Your task to perform on an android device: delete a single message in the gmail app Image 0: 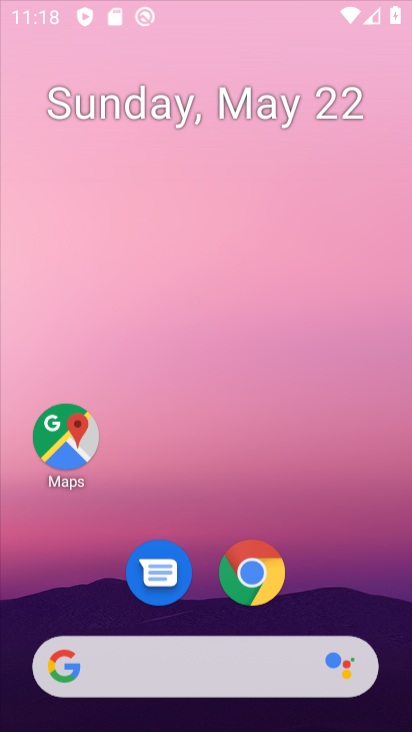
Step 0: click (192, 192)
Your task to perform on an android device: delete a single message in the gmail app Image 1: 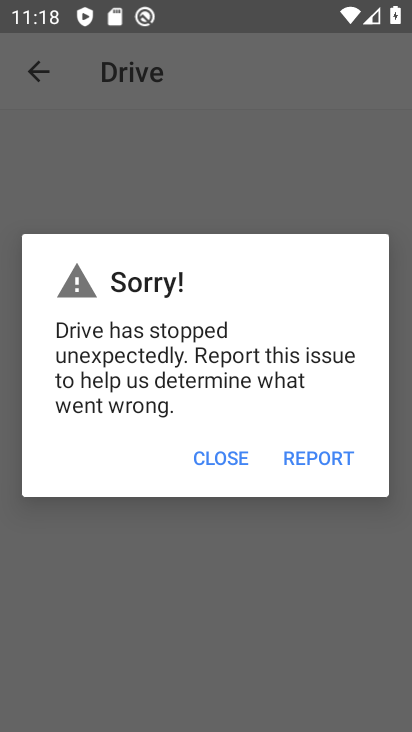
Step 1: press home button
Your task to perform on an android device: delete a single message in the gmail app Image 2: 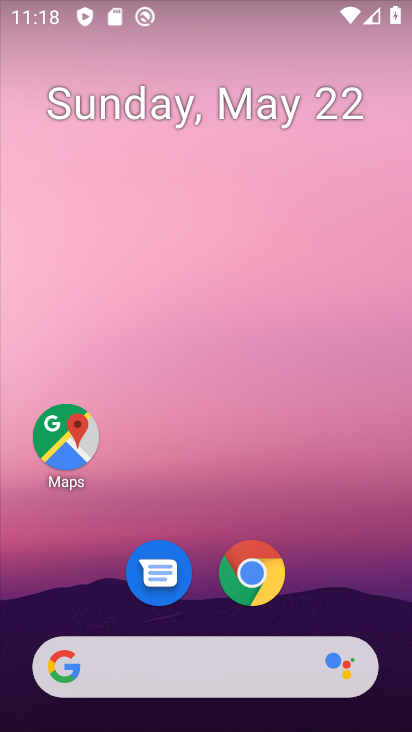
Step 2: drag from (198, 604) to (221, 5)
Your task to perform on an android device: delete a single message in the gmail app Image 3: 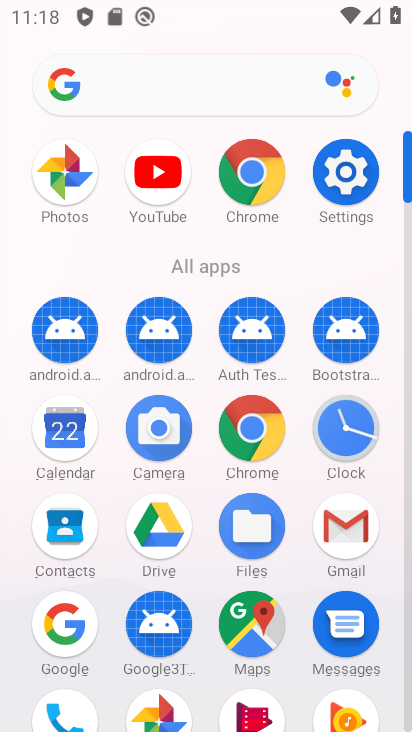
Step 3: click (349, 525)
Your task to perform on an android device: delete a single message in the gmail app Image 4: 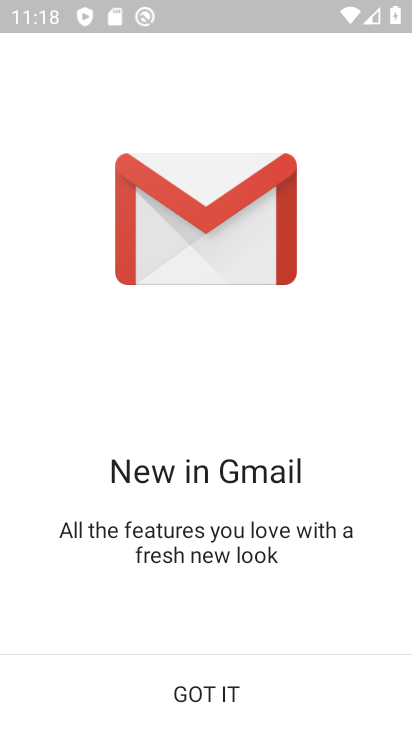
Step 4: click (209, 691)
Your task to perform on an android device: delete a single message in the gmail app Image 5: 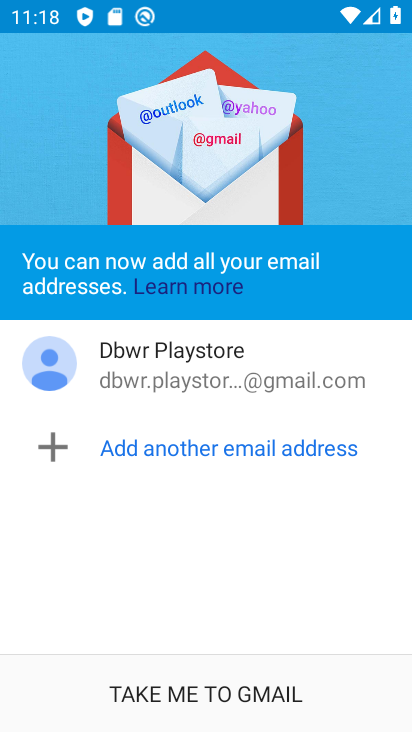
Step 5: click (209, 691)
Your task to perform on an android device: delete a single message in the gmail app Image 6: 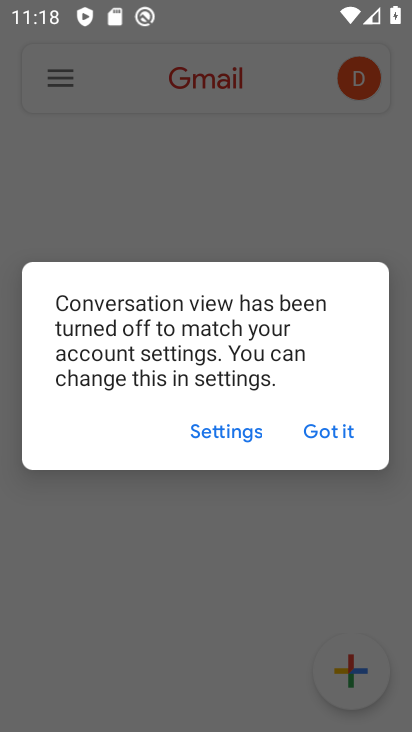
Step 6: click (341, 430)
Your task to perform on an android device: delete a single message in the gmail app Image 7: 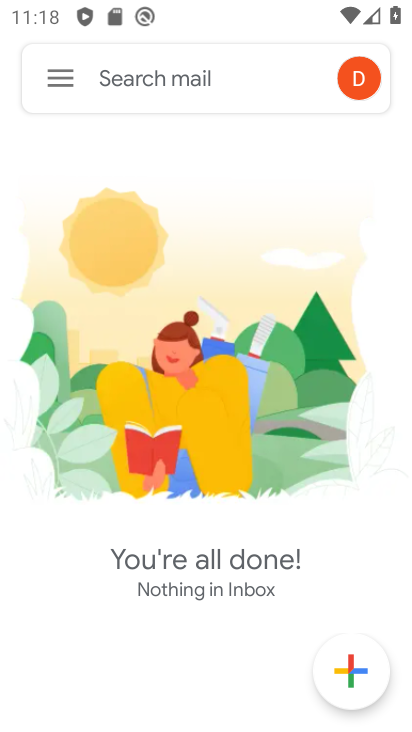
Step 7: click (66, 82)
Your task to perform on an android device: delete a single message in the gmail app Image 8: 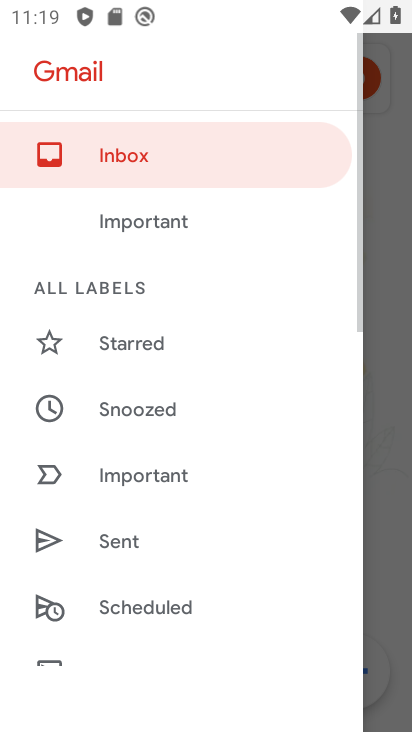
Step 8: drag from (142, 550) to (163, 262)
Your task to perform on an android device: delete a single message in the gmail app Image 9: 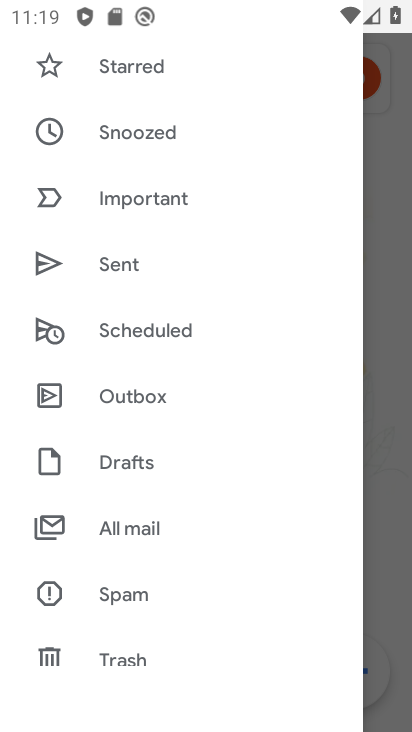
Step 9: click (141, 533)
Your task to perform on an android device: delete a single message in the gmail app Image 10: 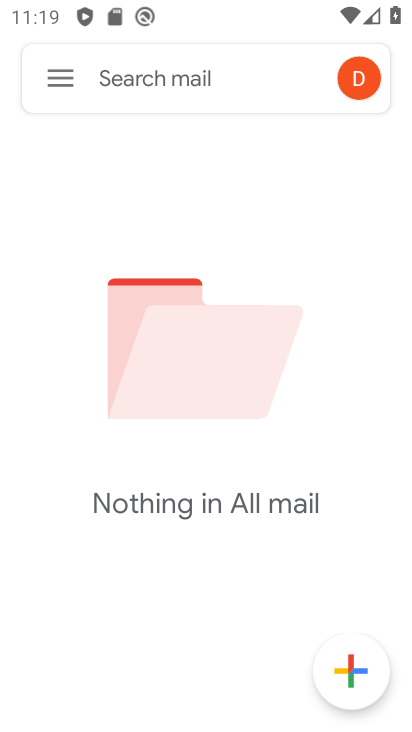
Step 10: task complete